Your task to perform on an android device: empty trash in google photos Image 0: 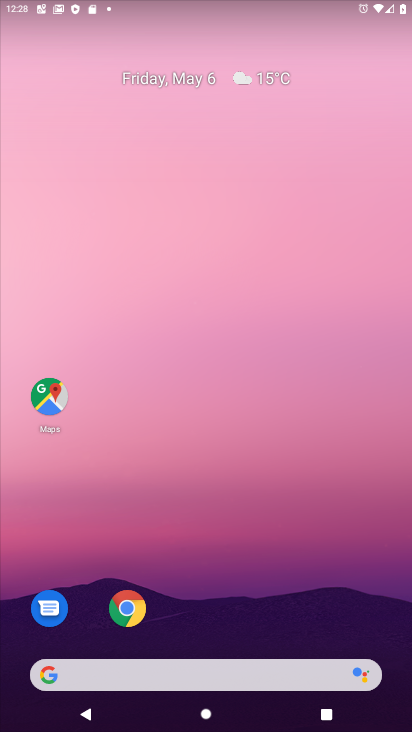
Step 0: drag from (273, 579) to (273, 245)
Your task to perform on an android device: empty trash in google photos Image 1: 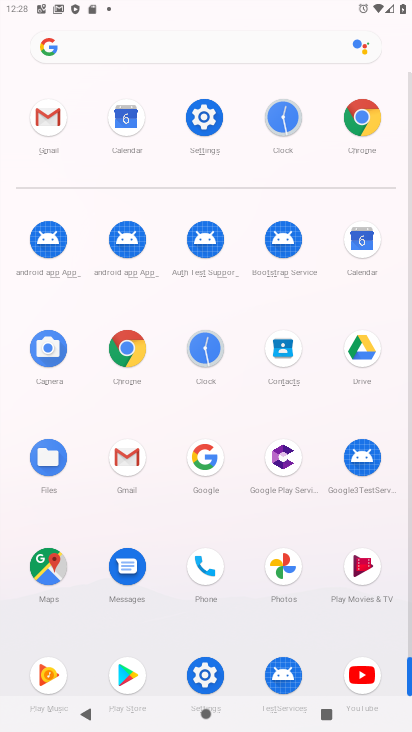
Step 1: click (287, 571)
Your task to perform on an android device: empty trash in google photos Image 2: 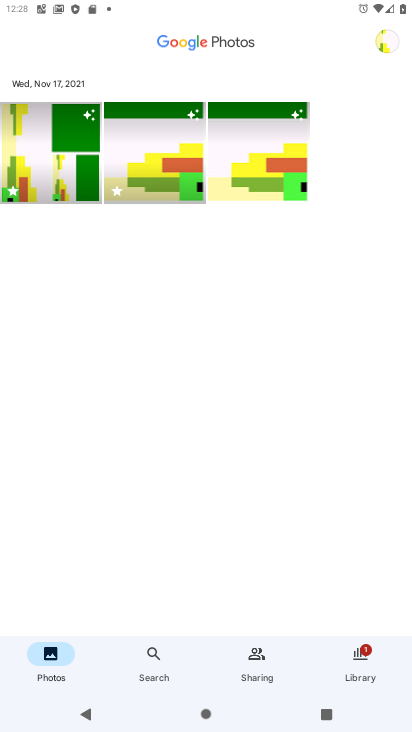
Step 2: click (358, 665)
Your task to perform on an android device: empty trash in google photos Image 3: 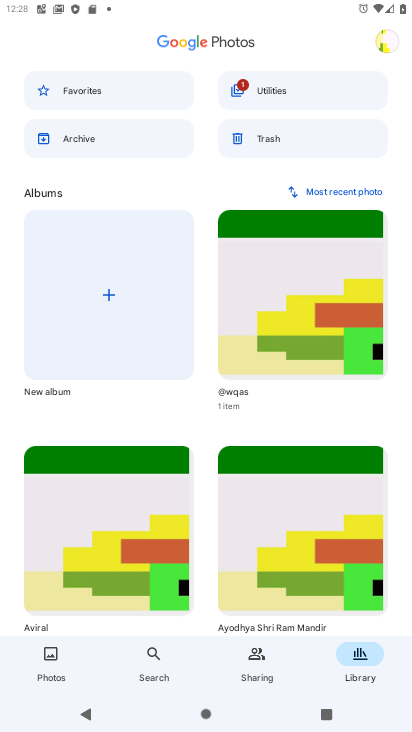
Step 3: click (283, 140)
Your task to perform on an android device: empty trash in google photos Image 4: 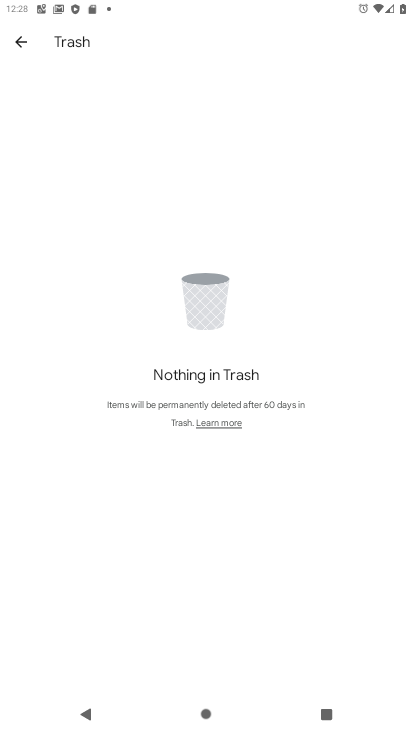
Step 4: task complete